Your task to perform on an android device: Open Yahoo.com Image 0: 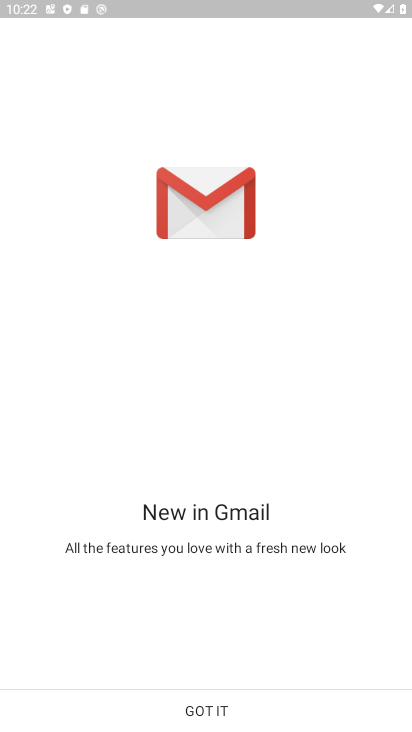
Step 0: press home button
Your task to perform on an android device: Open Yahoo.com Image 1: 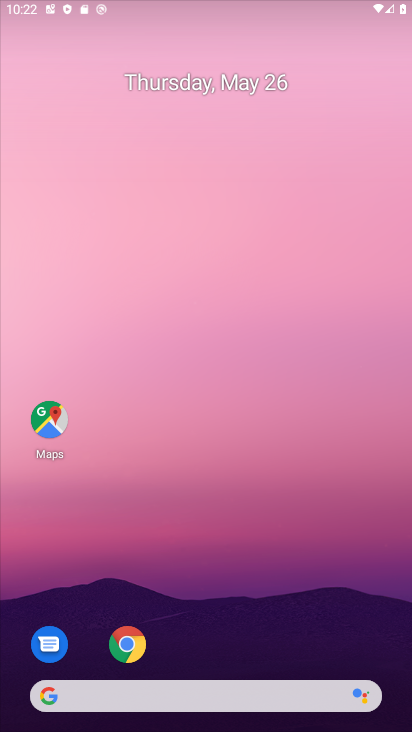
Step 1: drag from (359, 635) to (277, 119)
Your task to perform on an android device: Open Yahoo.com Image 2: 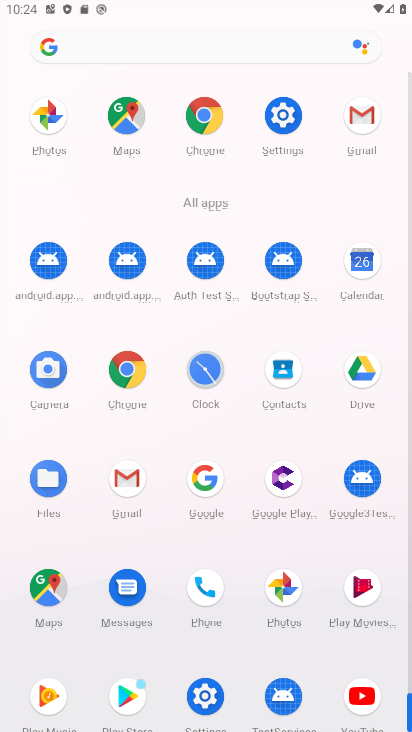
Step 2: click (207, 484)
Your task to perform on an android device: Open Yahoo.com Image 3: 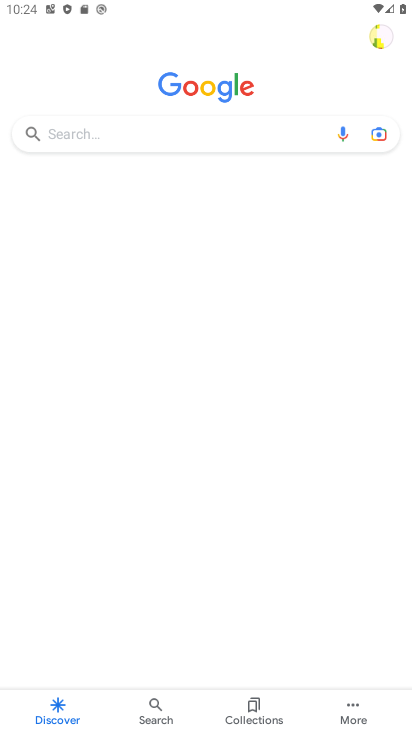
Step 3: click (151, 128)
Your task to perform on an android device: Open Yahoo.com Image 4: 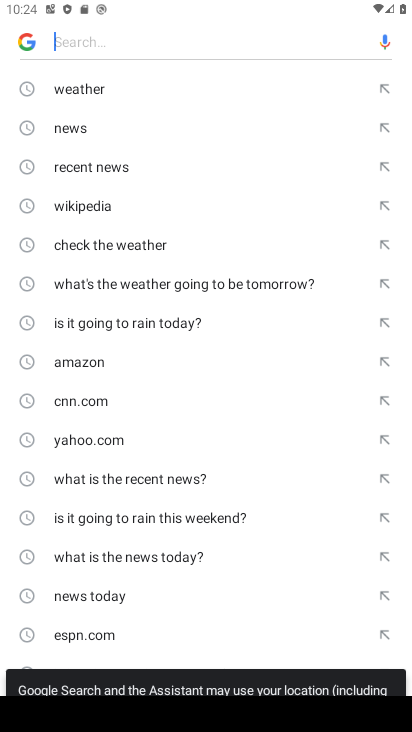
Step 4: click (100, 448)
Your task to perform on an android device: Open Yahoo.com Image 5: 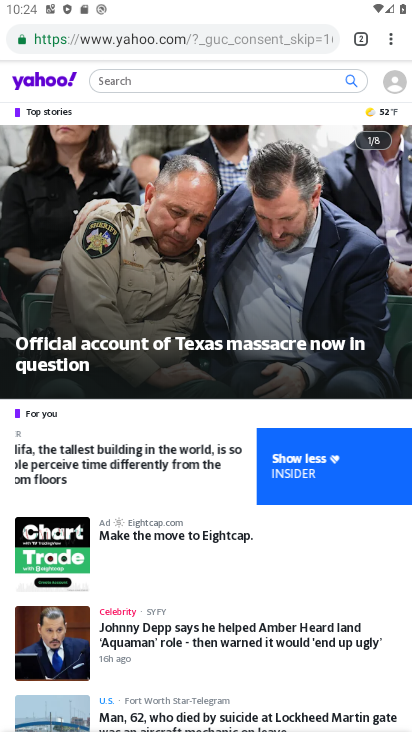
Step 5: task complete